Your task to perform on an android device: turn notification dots on Image 0: 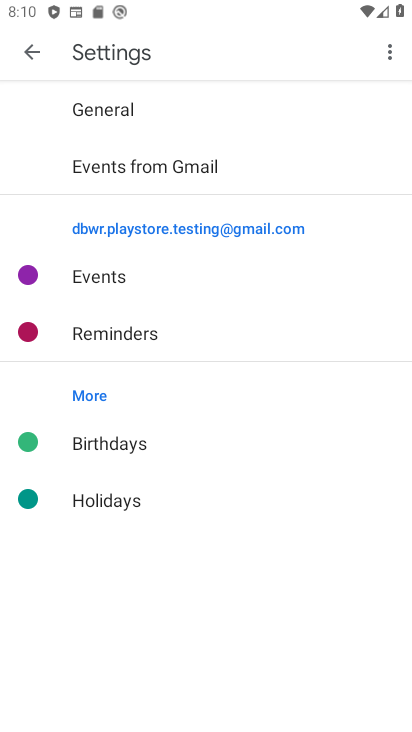
Step 0: press home button
Your task to perform on an android device: turn notification dots on Image 1: 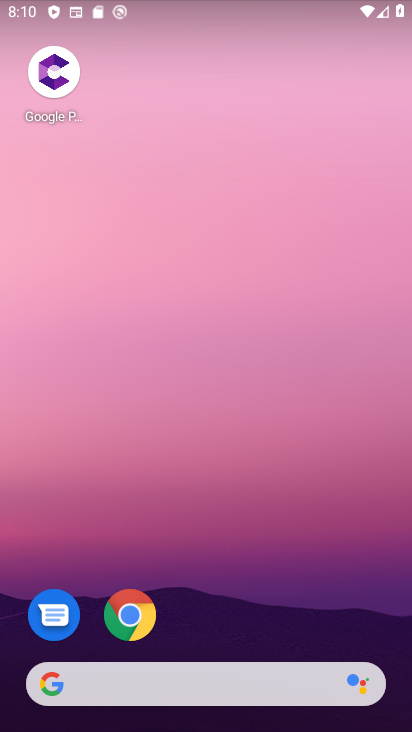
Step 1: drag from (193, 670) to (193, 389)
Your task to perform on an android device: turn notification dots on Image 2: 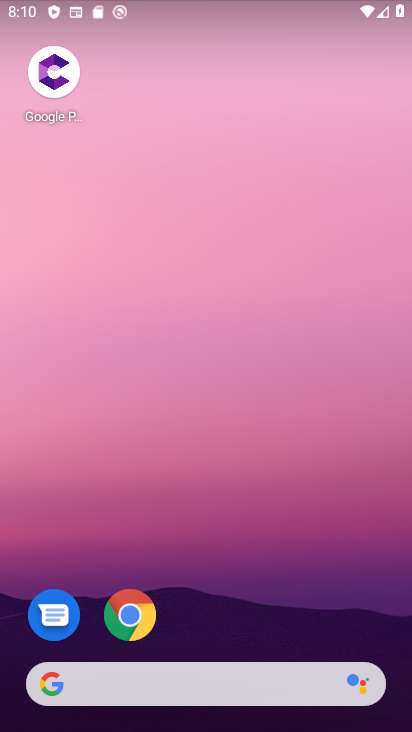
Step 2: drag from (142, 663) to (142, 306)
Your task to perform on an android device: turn notification dots on Image 3: 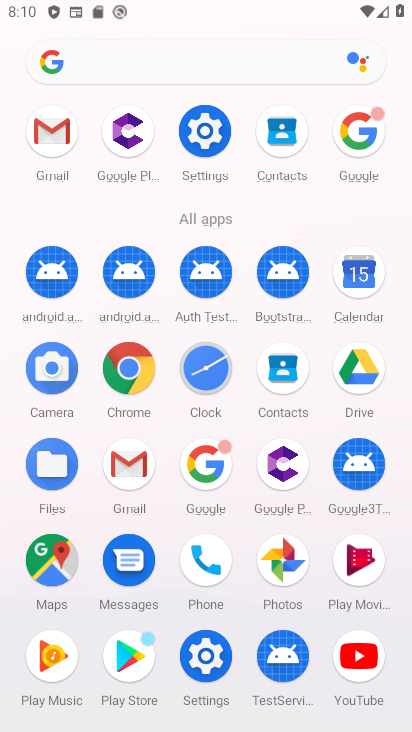
Step 3: click (196, 667)
Your task to perform on an android device: turn notification dots on Image 4: 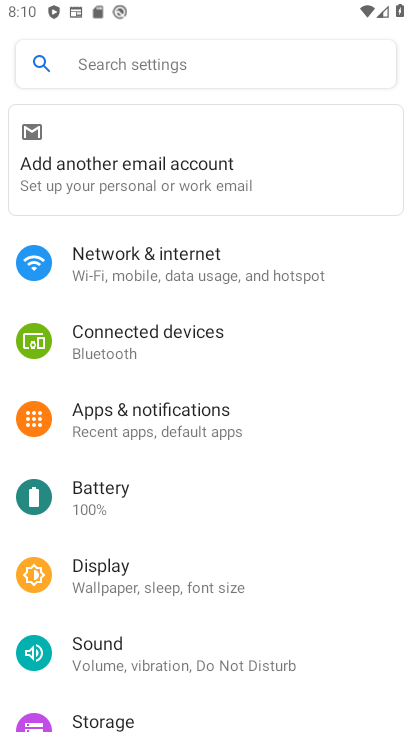
Step 4: click (179, 432)
Your task to perform on an android device: turn notification dots on Image 5: 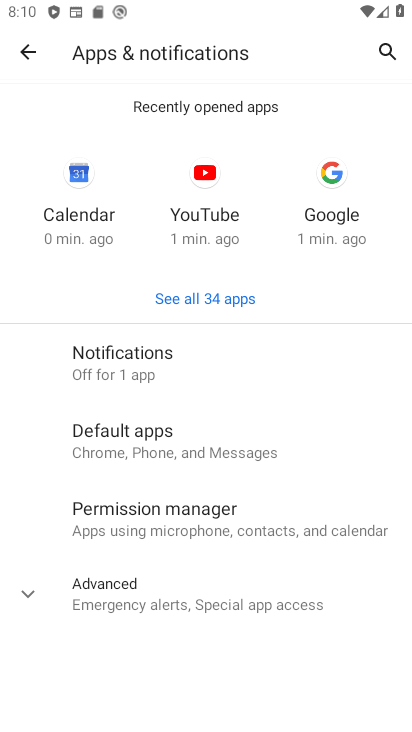
Step 5: click (148, 336)
Your task to perform on an android device: turn notification dots on Image 6: 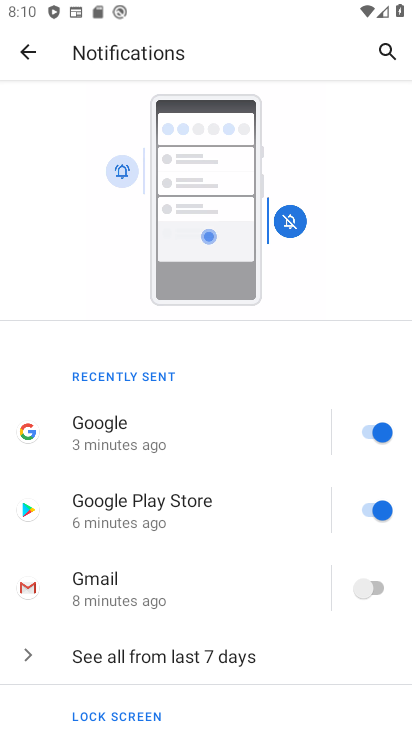
Step 6: drag from (232, 688) to (236, 353)
Your task to perform on an android device: turn notification dots on Image 7: 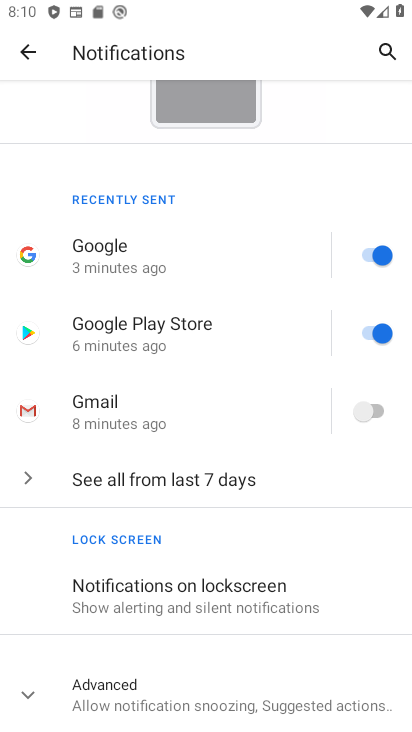
Step 7: click (194, 704)
Your task to perform on an android device: turn notification dots on Image 8: 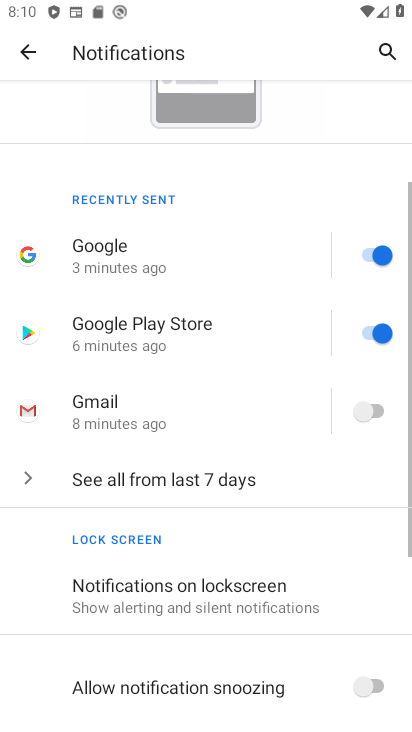
Step 8: task complete